Your task to perform on an android device: Open Yahoo.com Image 0: 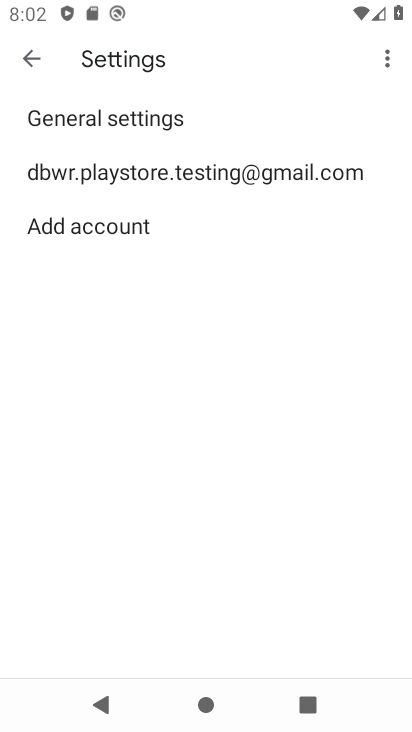
Step 0: task complete